Your task to perform on an android device: open app "DoorDash - Food Delivery" Image 0: 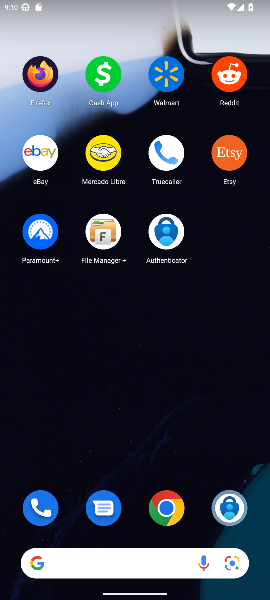
Step 0: drag from (131, 524) to (216, 7)
Your task to perform on an android device: open app "DoorDash - Food Delivery" Image 1: 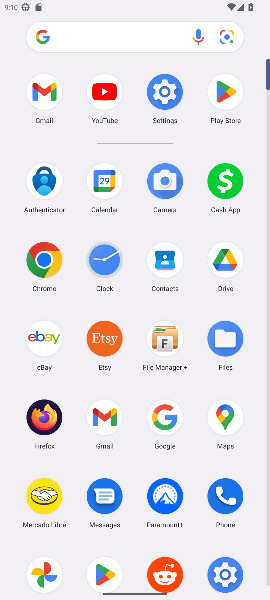
Step 1: click (227, 85)
Your task to perform on an android device: open app "DoorDash - Food Delivery" Image 2: 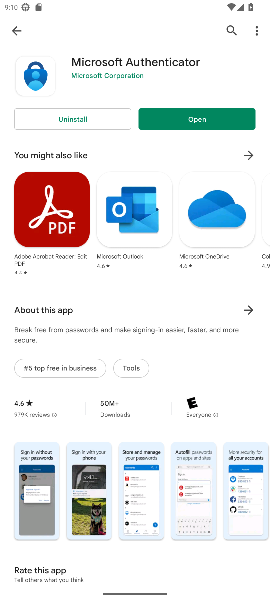
Step 2: click (227, 30)
Your task to perform on an android device: open app "DoorDash - Food Delivery" Image 3: 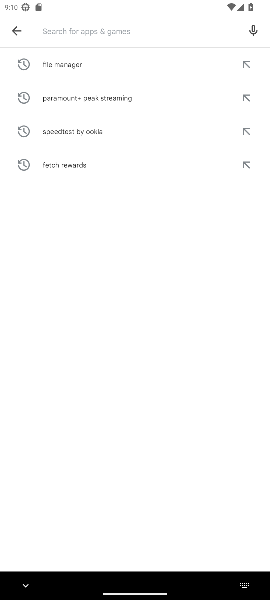
Step 3: type "doordash - food delivery"
Your task to perform on an android device: open app "DoorDash - Food Delivery" Image 4: 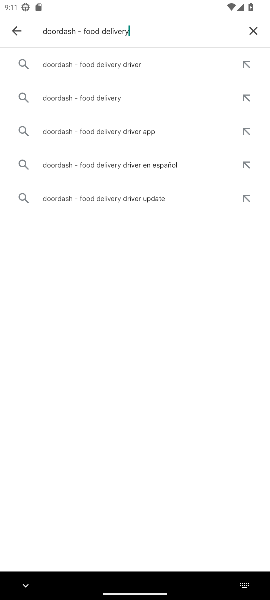
Step 4: click (148, 69)
Your task to perform on an android device: open app "DoorDash - Food Delivery" Image 5: 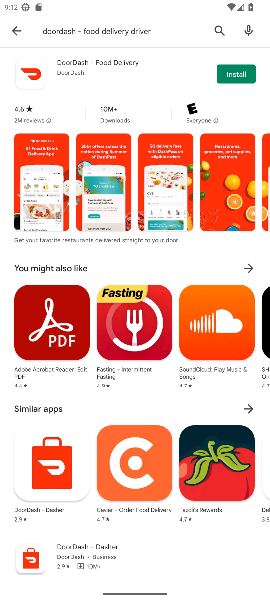
Step 5: task complete